Your task to perform on an android device: Open settings on Google Maps Image 0: 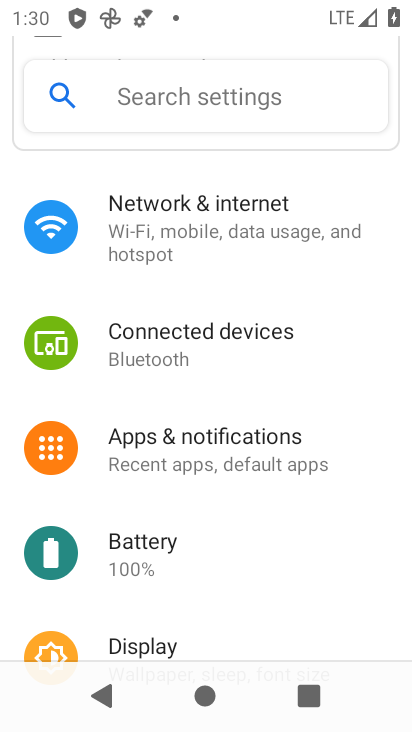
Step 0: press home button
Your task to perform on an android device: Open settings on Google Maps Image 1: 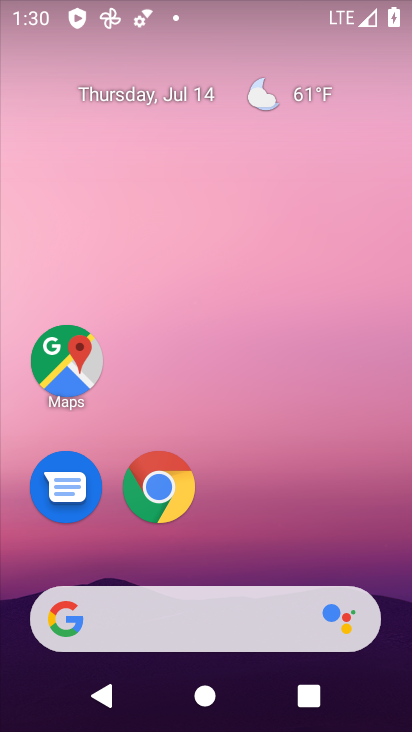
Step 1: drag from (324, 524) to (355, 159)
Your task to perform on an android device: Open settings on Google Maps Image 2: 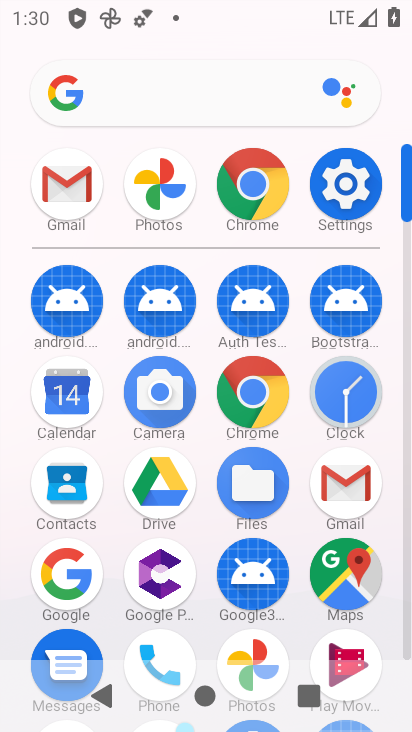
Step 2: drag from (389, 518) to (391, 249)
Your task to perform on an android device: Open settings on Google Maps Image 3: 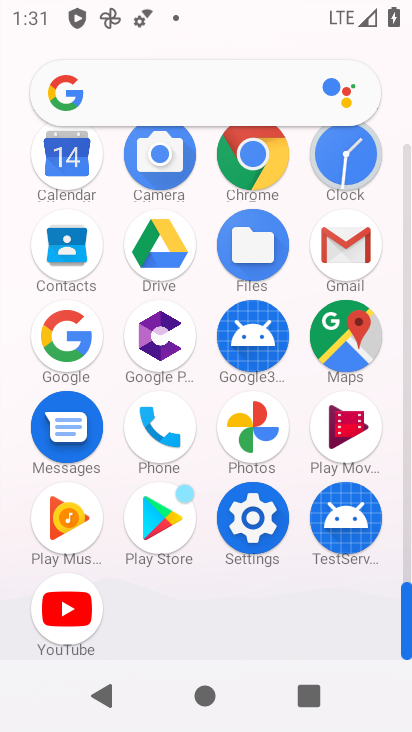
Step 3: click (351, 328)
Your task to perform on an android device: Open settings on Google Maps Image 4: 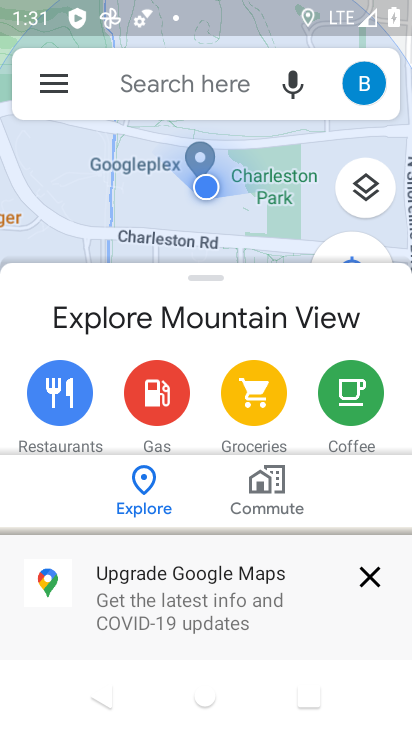
Step 4: click (53, 83)
Your task to perform on an android device: Open settings on Google Maps Image 5: 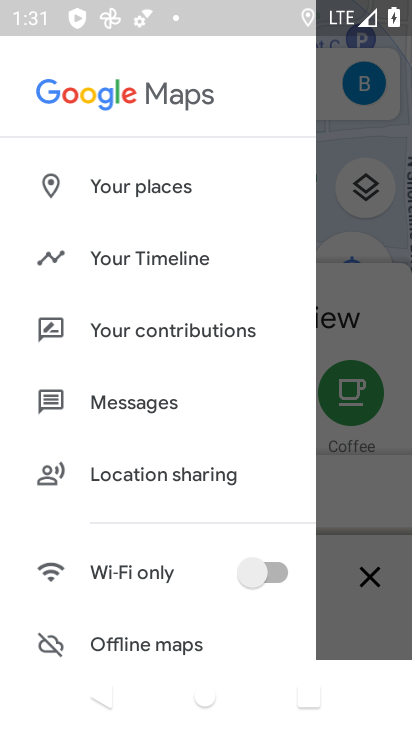
Step 5: drag from (221, 401) to (229, 267)
Your task to perform on an android device: Open settings on Google Maps Image 6: 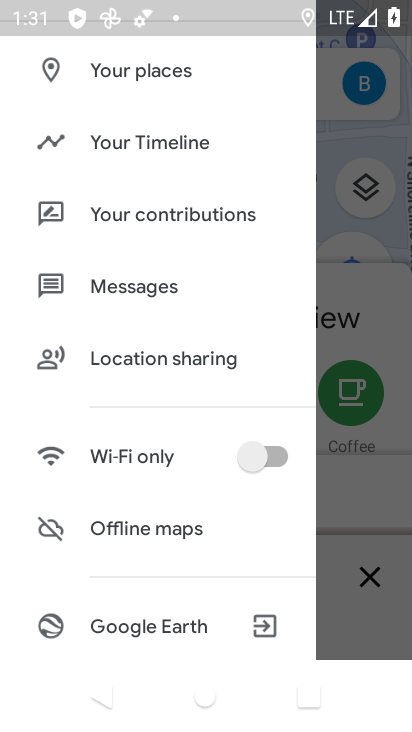
Step 6: drag from (196, 450) to (199, 331)
Your task to perform on an android device: Open settings on Google Maps Image 7: 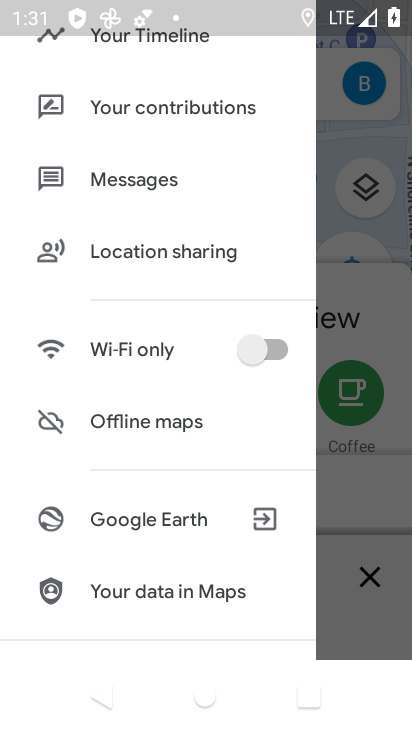
Step 7: drag from (209, 451) to (207, 342)
Your task to perform on an android device: Open settings on Google Maps Image 8: 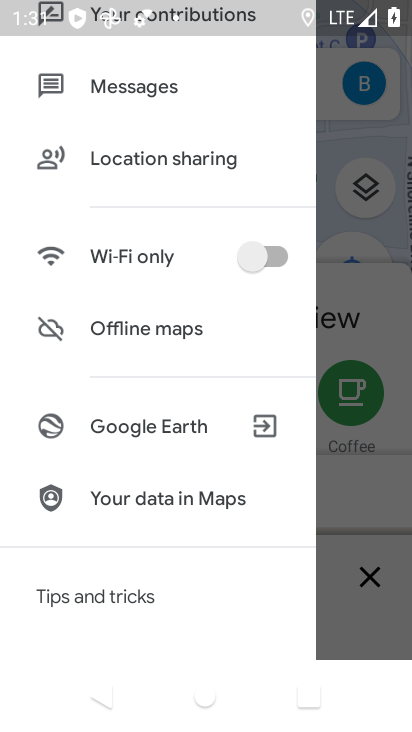
Step 8: drag from (201, 466) to (197, 337)
Your task to perform on an android device: Open settings on Google Maps Image 9: 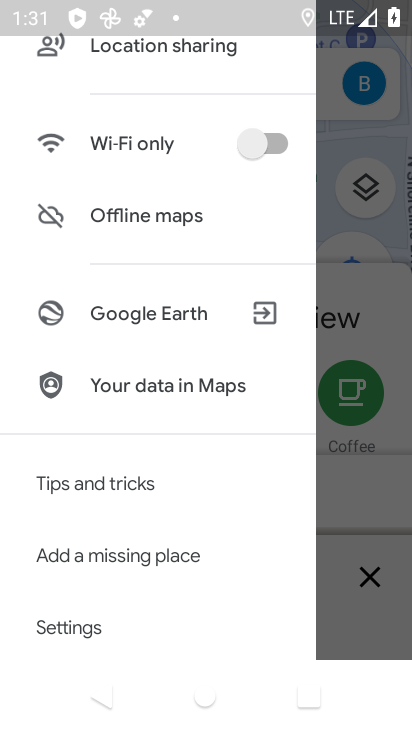
Step 9: drag from (215, 459) to (218, 313)
Your task to perform on an android device: Open settings on Google Maps Image 10: 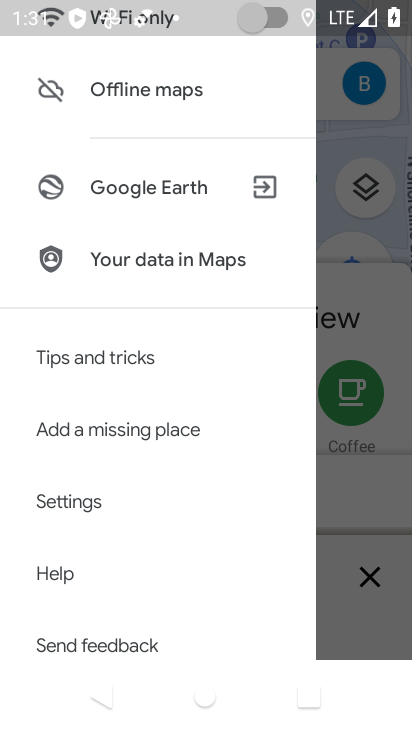
Step 10: click (126, 517)
Your task to perform on an android device: Open settings on Google Maps Image 11: 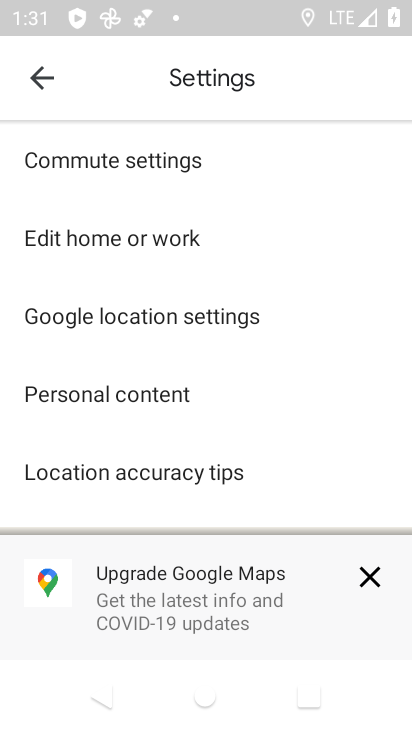
Step 11: task complete